Your task to perform on an android device: add a label to a message in the gmail app Image 0: 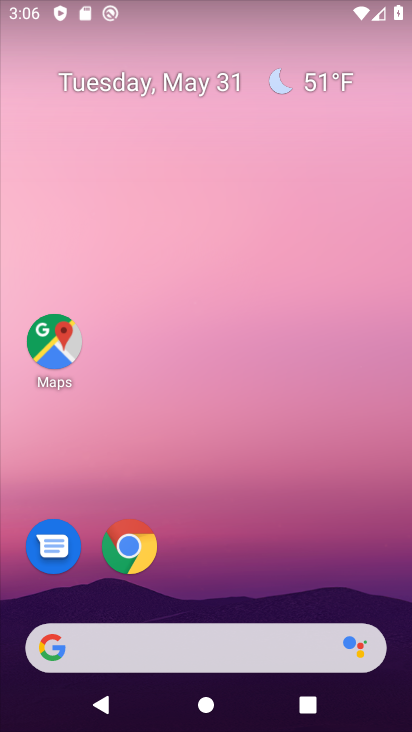
Step 0: drag from (223, 572) to (206, 73)
Your task to perform on an android device: add a label to a message in the gmail app Image 1: 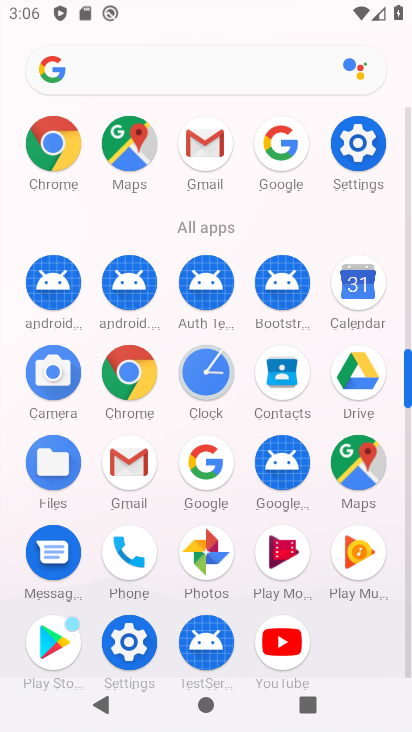
Step 1: click (132, 457)
Your task to perform on an android device: add a label to a message in the gmail app Image 2: 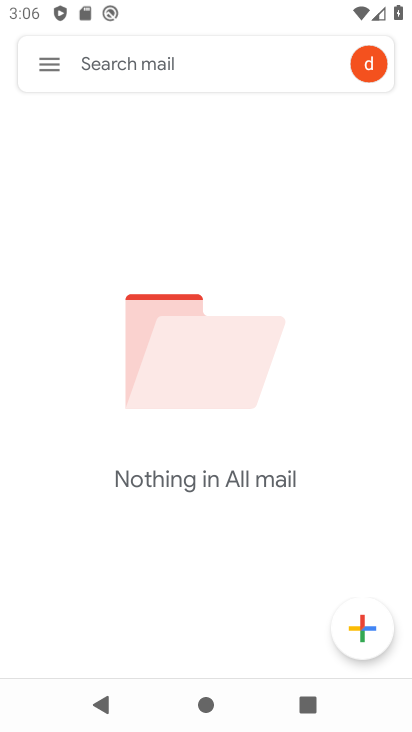
Step 2: task complete